Your task to perform on an android device: star an email in the gmail app Image 0: 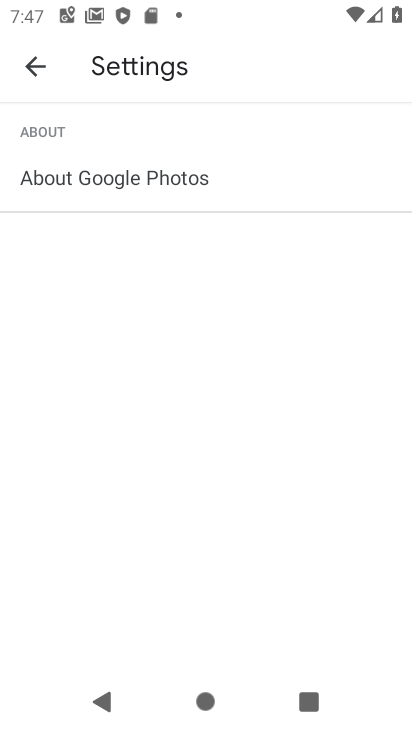
Step 0: press home button
Your task to perform on an android device: star an email in the gmail app Image 1: 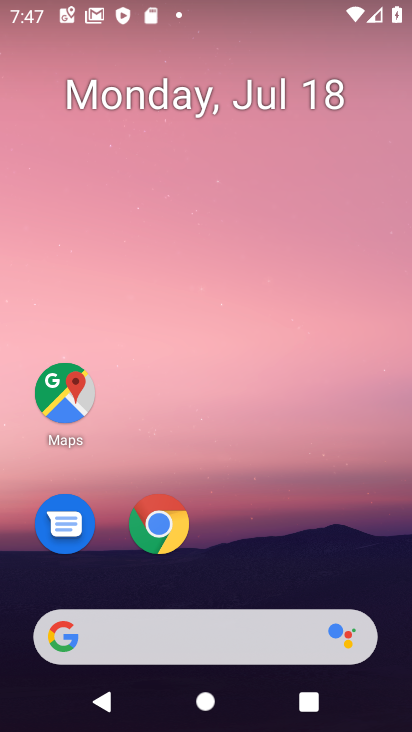
Step 1: drag from (278, 572) to (286, 67)
Your task to perform on an android device: star an email in the gmail app Image 2: 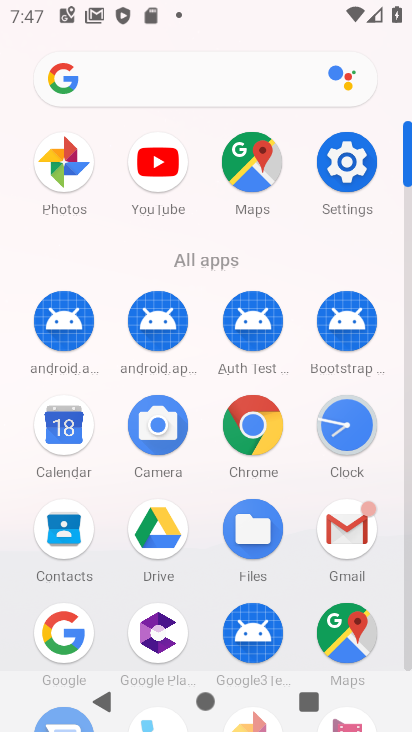
Step 2: click (341, 532)
Your task to perform on an android device: star an email in the gmail app Image 3: 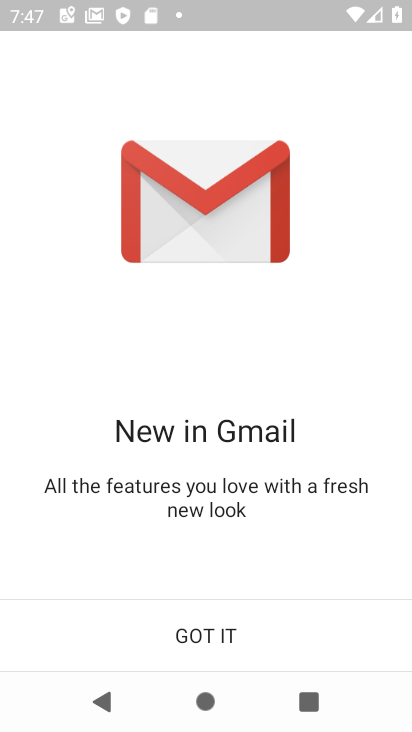
Step 3: click (255, 612)
Your task to perform on an android device: star an email in the gmail app Image 4: 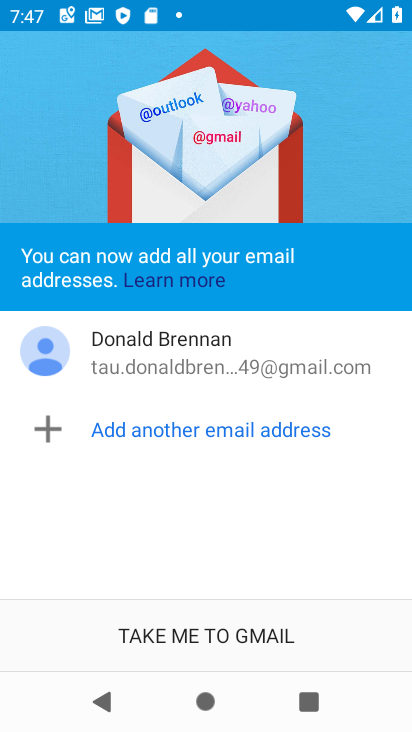
Step 4: click (252, 630)
Your task to perform on an android device: star an email in the gmail app Image 5: 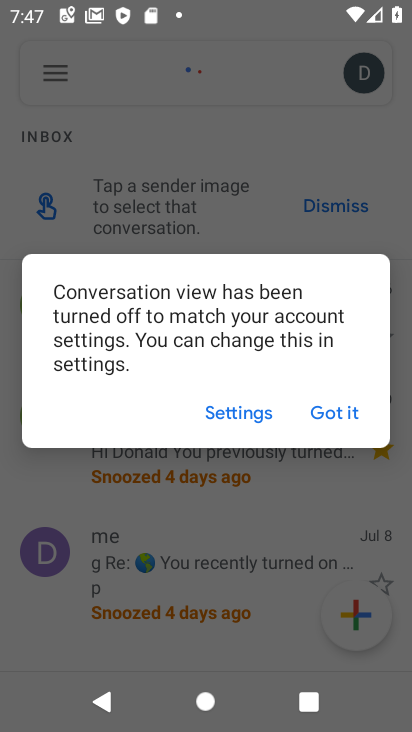
Step 5: click (328, 417)
Your task to perform on an android device: star an email in the gmail app Image 6: 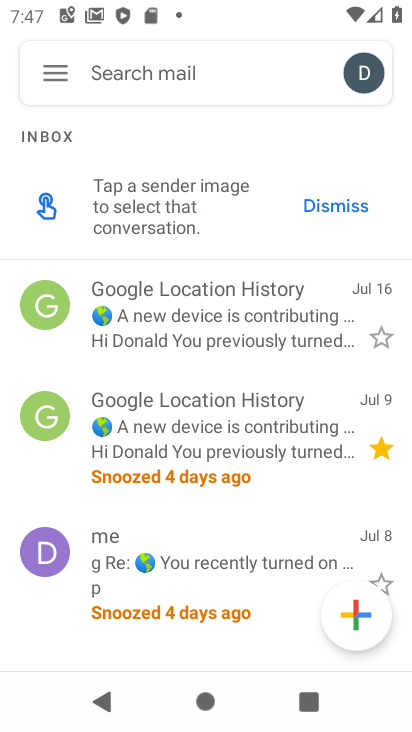
Step 6: click (377, 329)
Your task to perform on an android device: star an email in the gmail app Image 7: 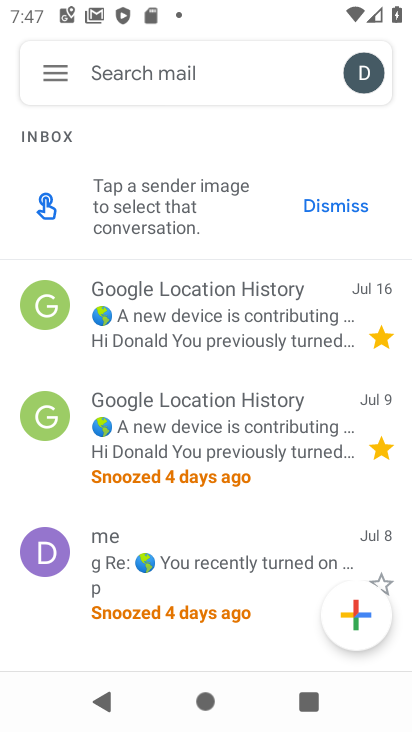
Step 7: task complete